Your task to perform on an android device: turn off data saver in the chrome app Image 0: 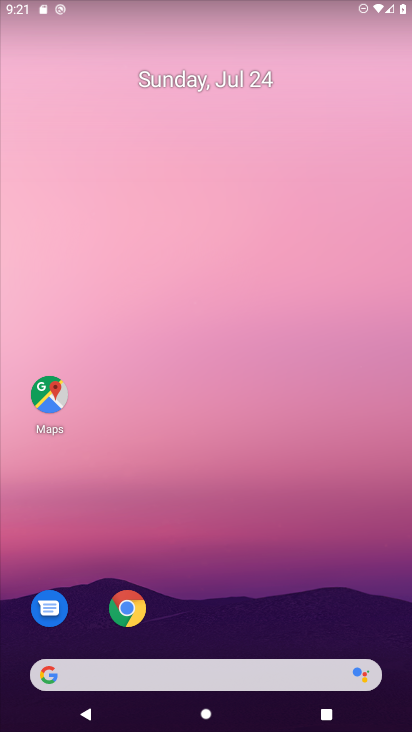
Step 0: drag from (203, 554) to (5, 294)
Your task to perform on an android device: turn off data saver in the chrome app Image 1: 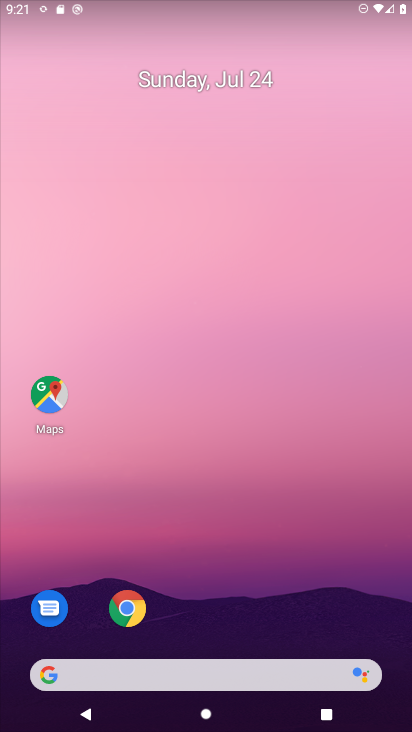
Step 1: click (119, 606)
Your task to perform on an android device: turn off data saver in the chrome app Image 2: 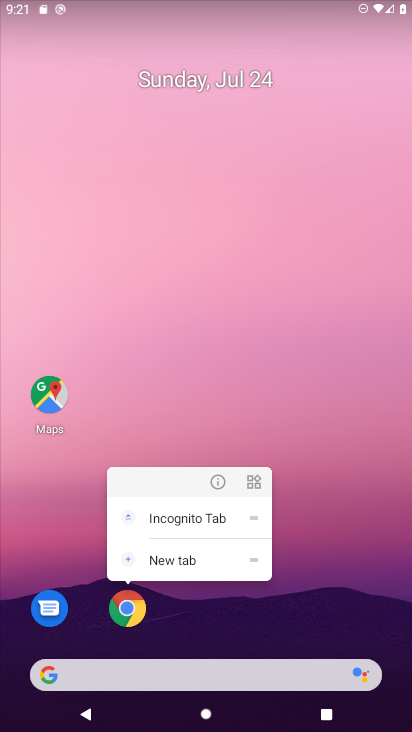
Step 2: click (219, 472)
Your task to perform on an android device: turn off data saver in the chrome app Image 3: 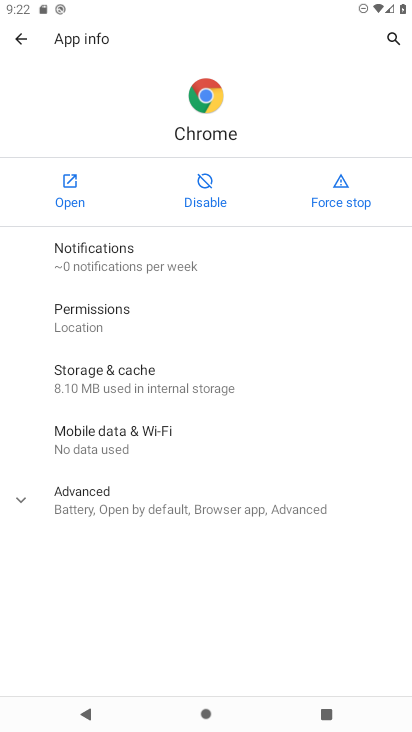
Step 3: click (49, 199)
Your task to perform on an android device: turn off data saver in the chrome app Image 4: 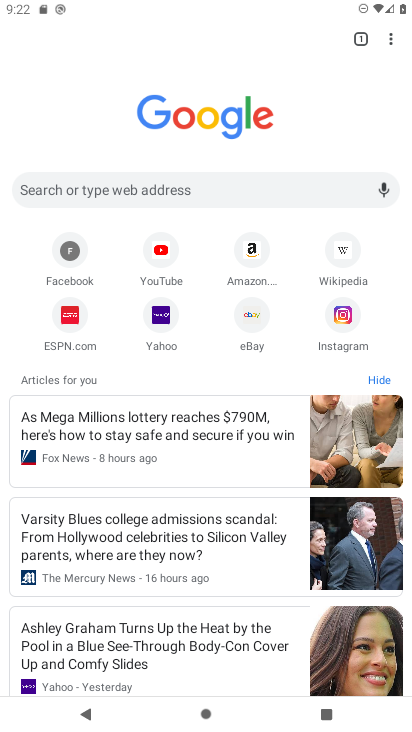
Step 4: drag from (387, 34) to (320, 326)
Your task to perform on an android device: turn off data saver in the chrome app Image 5: 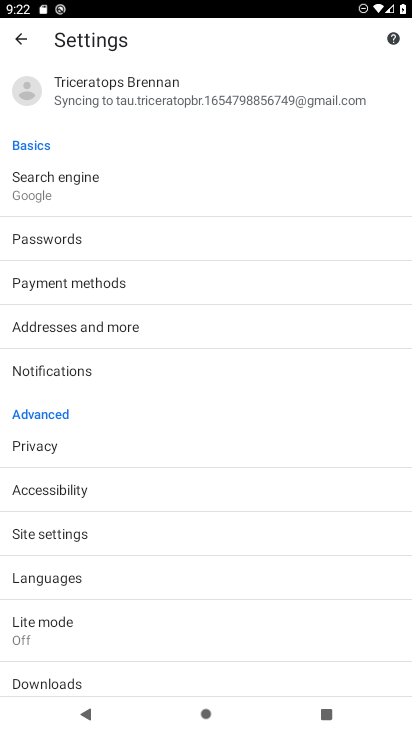
Step 5: drag from (157, 605) to (202, 49)
Your task to perform on an android device: turn off data saver in the chrome app Image 6: 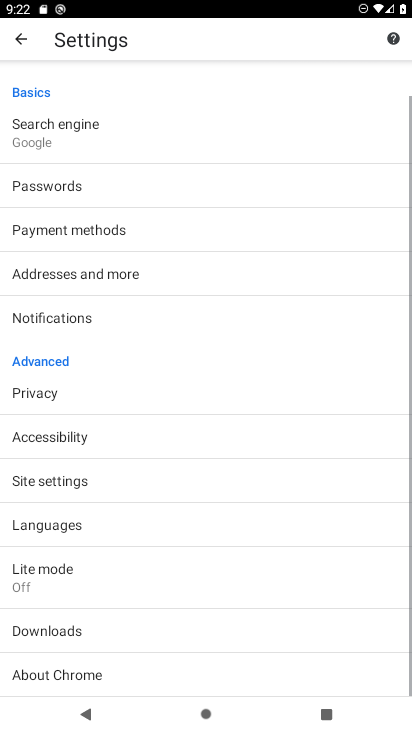
Step 6: drag from (146, 587) to (53, 12)
Your task to perform on an android device: turn off data saver in the chrome app Image 7: 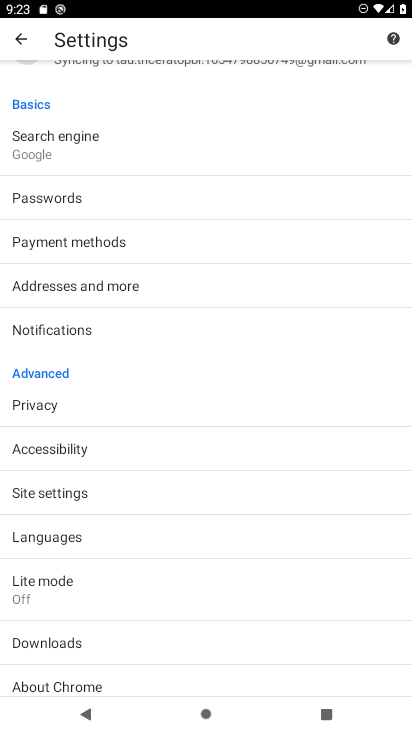
Step 7: drag from (222, 678) to (264, 226)
Your task to perform on an android device: turn off data saver in the chrome app Image 8: 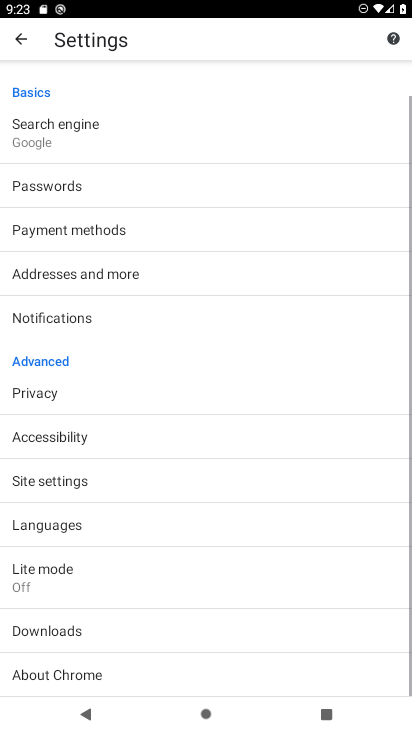
Step 8: drag from (145, 661) to (204, 478)
Your task to perform on an android device: turn off data saver in the chrome app Image 9: 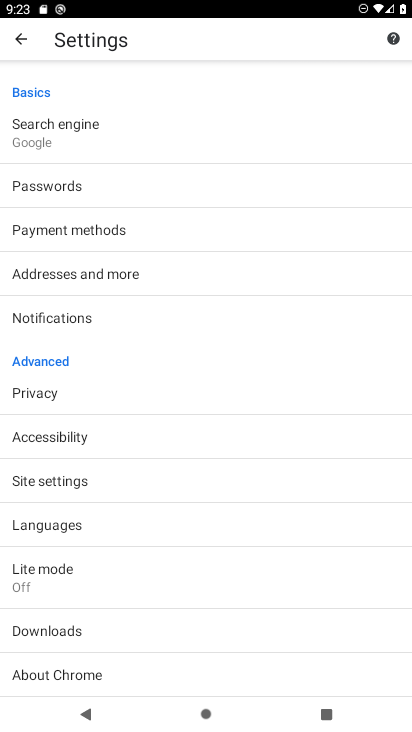
Step 9: drag from (110, 699) to (158, 539)
Your task to perform on an android device: turn off data saver in the chrome app Image 10: 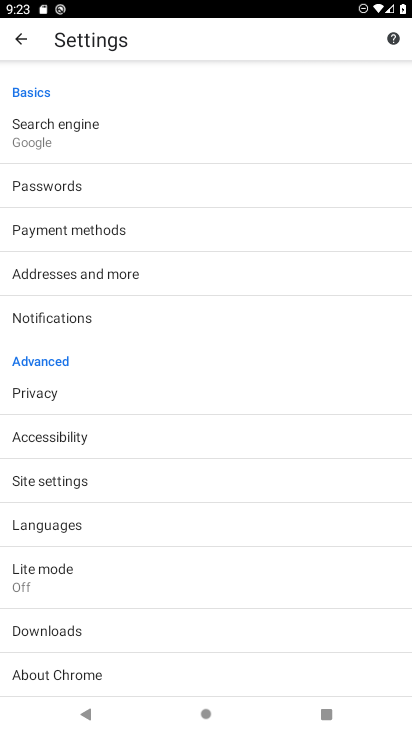
Step 10: drag from (204, 641) to (223, 251)
Your task to perform on an android device: turn off data saver in the chrome app Image 11: 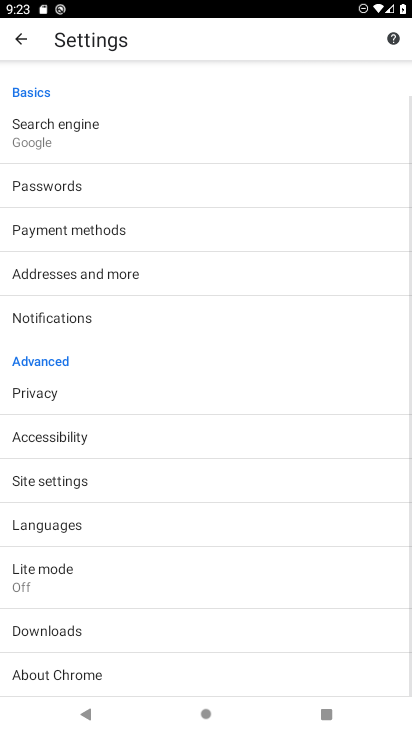
Step 11: drag from (119, 563) to (159, 409)
Your task to perform on an android device: turn off data saver in the chrome app Image 12: 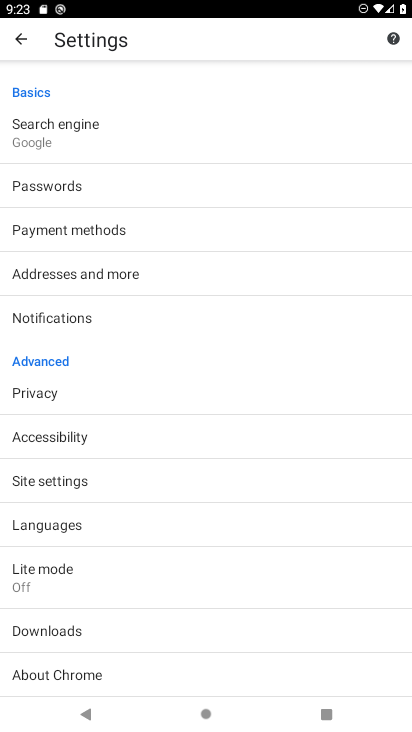
Step 12: drag from (92, 645) to (185, 366)
Your task to perform on an android device: turn off data saver in the chrome app Image 13: 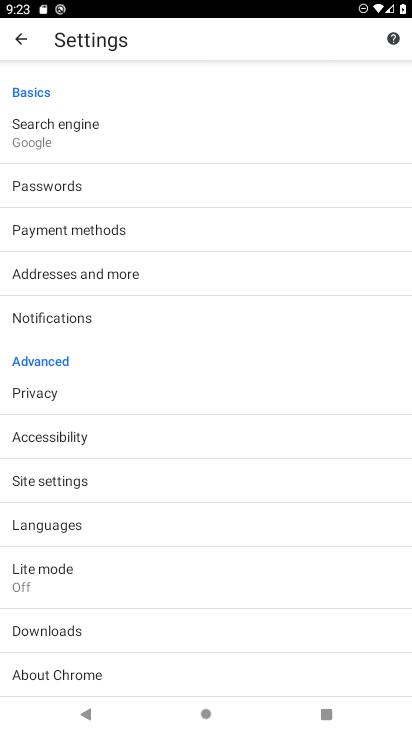
Step 13: drag from (190, 598) to (218, 200)
Your task to perform on an android device: turn off data saver in the chrome app Image 14: 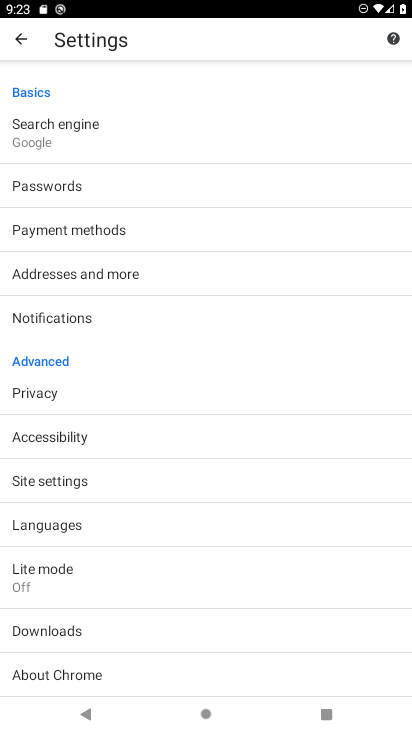
Step 14: click (117, 478)
Your task to perform on an android device: turn off data saver in the chrome app Image 15: 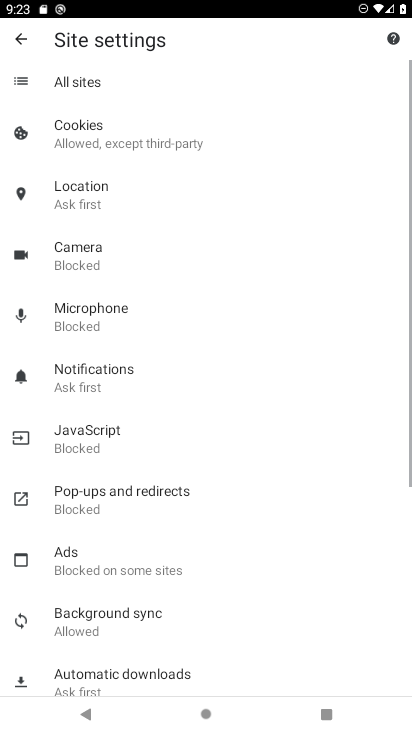
Step 15: drag from (134, 716) to (183, 450)
Your task to perform on an android device: turn off data saver in the chrome app Image 16: 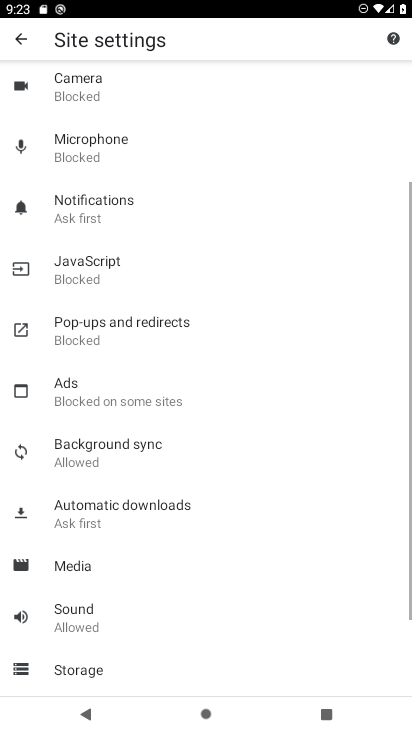
Step 16: drag from (225, 211) to (300, 717)
Your task to perform on an android device: turn off data saver in the chrome app Image 17: 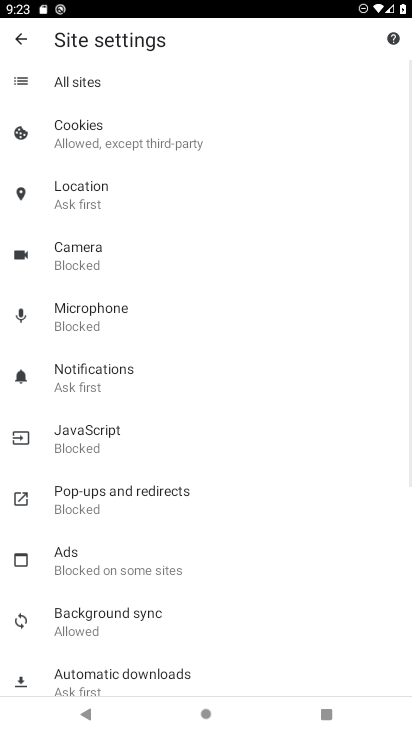
Step 17: drag from (199, 258) to (327, 696)
Your task to perform on an android device: turn off data saver in the chrome app Image 18: 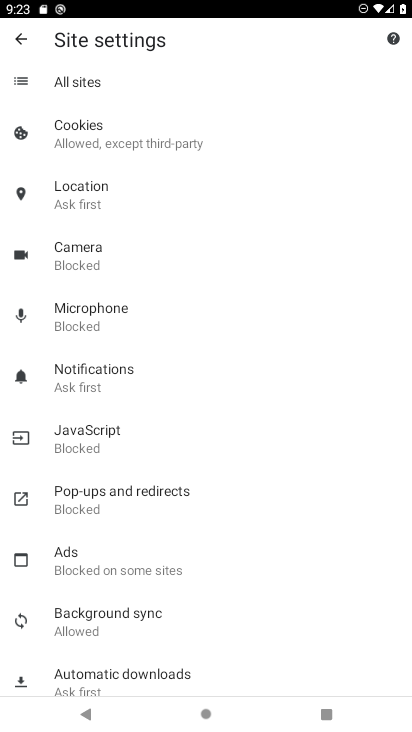
Step 18: drag from (131, 600) to (205, 113)
Your task to perform on an android device: turn off data saver in the chrome app Image 19: 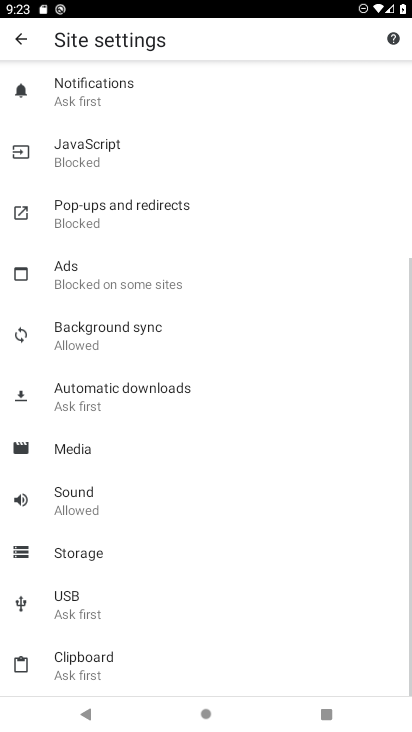
Step 19: click (8, 37)
Your task to perform on an android device: turn off data saver in the chrome app Image 20: 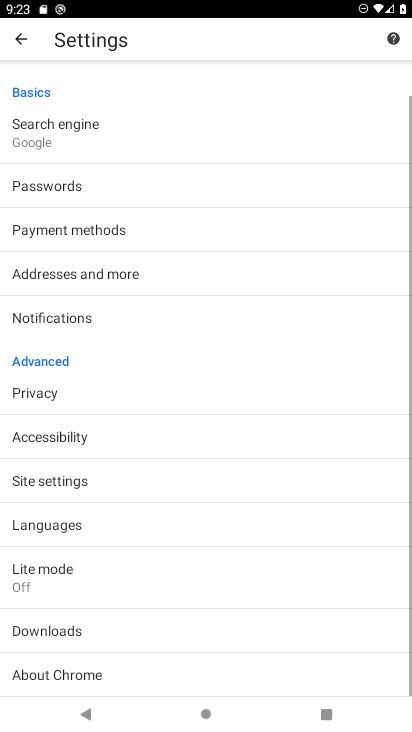
Step 20: drag from (189, 652) to (184, 175)
Your task to perform on an android device: turn off data saver in the chrome app Image 21: 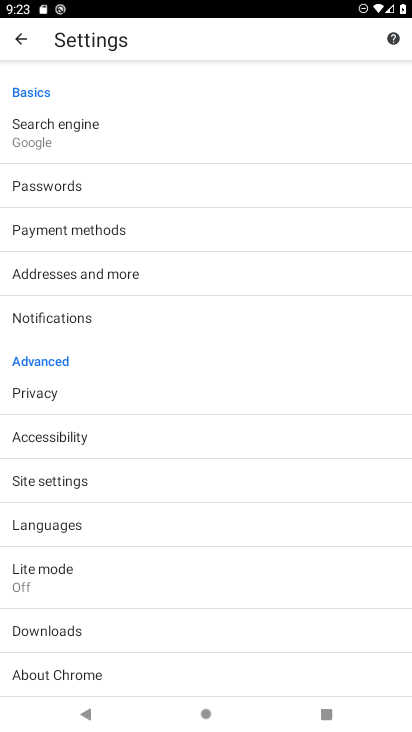
Step 21: drag from (145, 530) to (199, 195)
Your task to perform on an android device: turn off data saver in the chrome app Image 22: 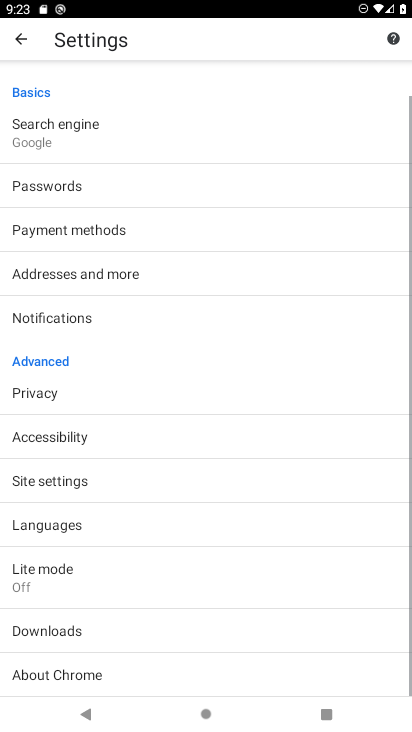
Step 22: drag from (185, 627) to (266, 256)
Your task to perform on an android device: turn off data saver in the chrome app Image 23: 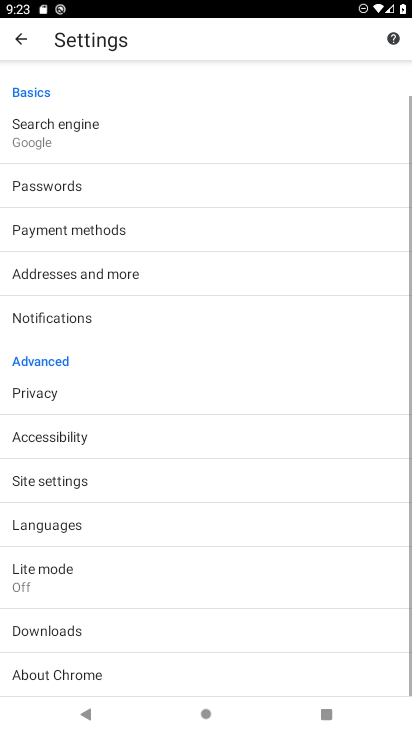
Step 23: drag from (160, 604) to (247, 214)
Your task to perform on an android device: turn off data saver in the chrome app Image 24: 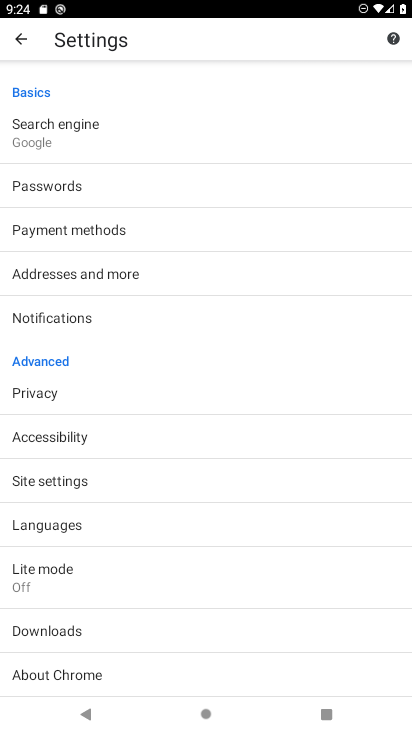
Step 24: drag from (122, 630) to (233, 310)
Your task to perform on an android device: turn off data saver in the chrome app Image 25: 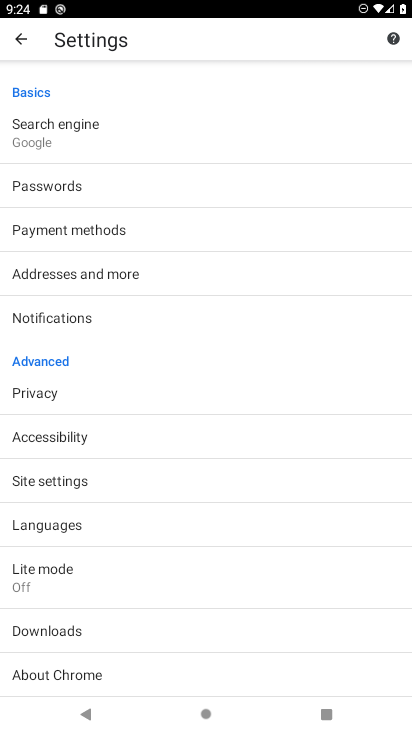
Step 25: drag from (227, 556) to (238, 205)
Your task to perform on an android device: turn off data saver in the chrome app Image 26: 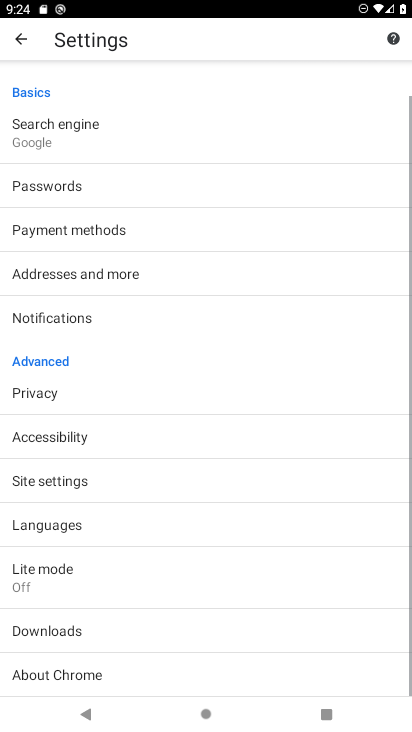
Step 26: drag from (140, 141) to (289, 731)
Your task to perform on an android device: turn off data saver in the chrome app Image 27: 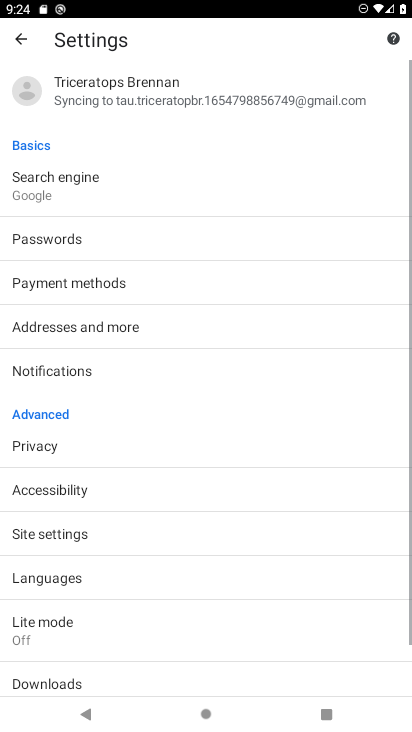
Step 27: click (99, 639)
Your task to perform on an android device: turn off data saver in the chrome app Image 28: 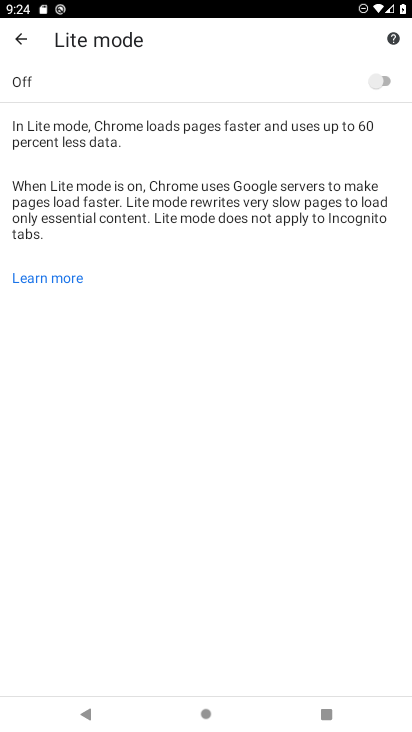
Step 28: click (333, 156)
Your task to perform on an android device: turn off data saver in the chrome app Image 29: 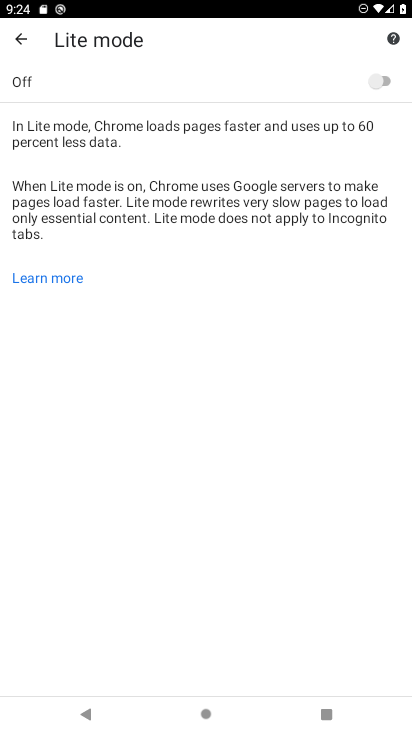
Step 29: click (363, 81)
Your task to perform on an android device: turn off data saver in the chrome app Image 30: 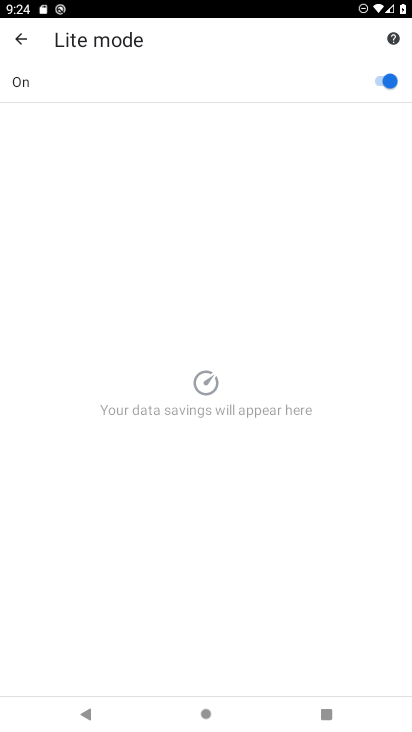
Step 30: task complete